Your task to perform on an android device: Where can I buy a nice beach hat? Image 0: 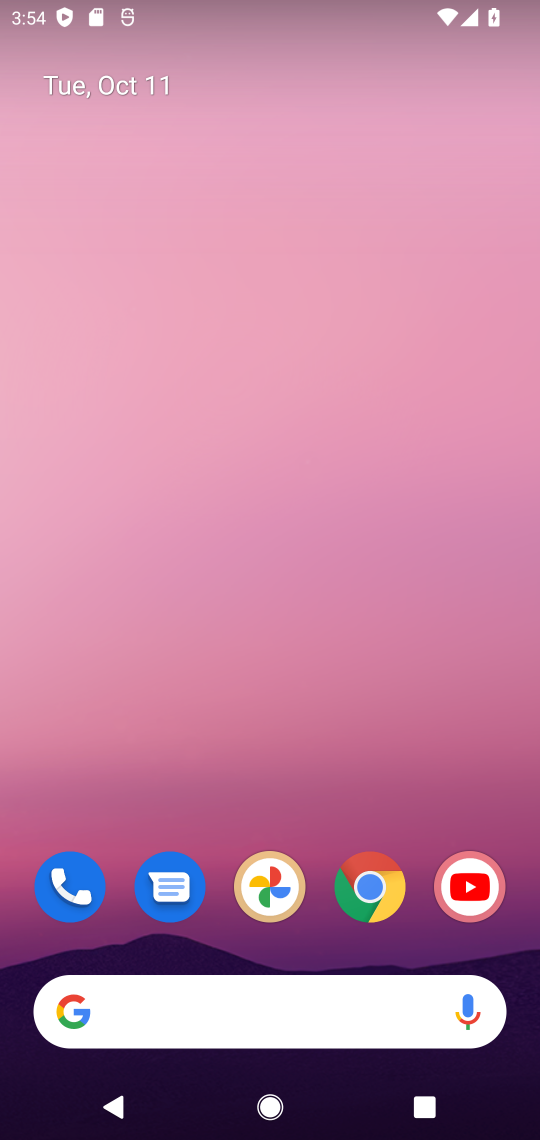
Step 0: click (378, 894)
Your task to perform on an android device: Where can I buy a nice beach hat? Image 1: 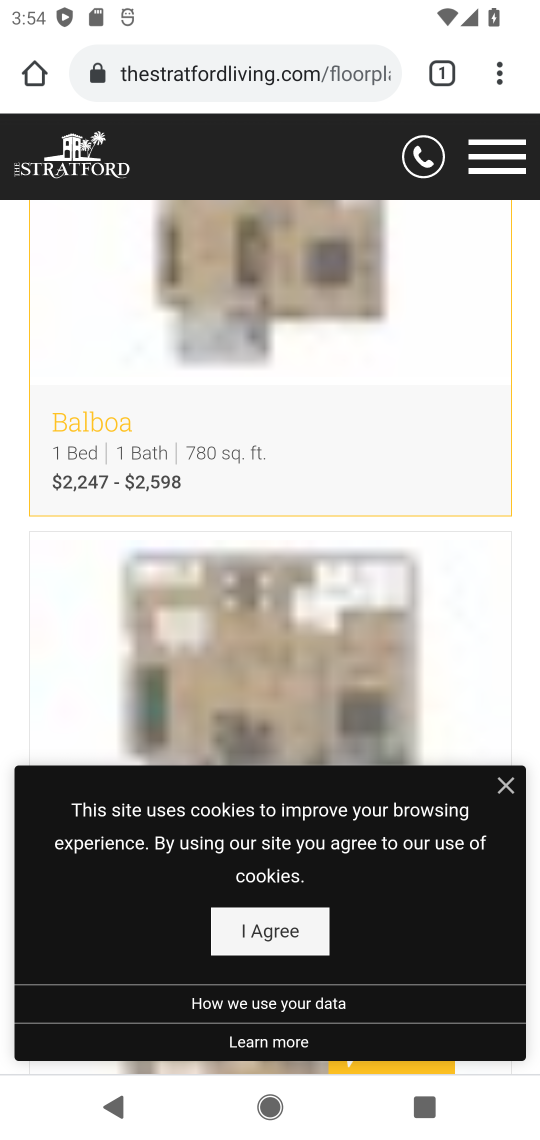
Step 1: click (223, 72)
Your task to perform on an android device: Where can I buy a nice beach hat? Image 2: 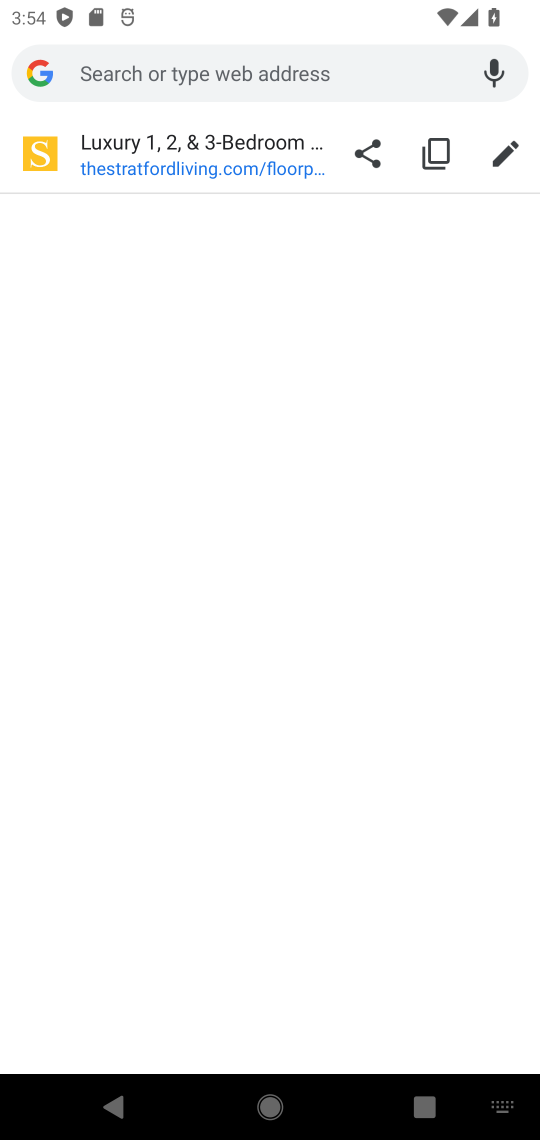
Step 2: type "beach hat"
Your task to perform on an android device: Where can I buy a nice beach hat? Image 3: 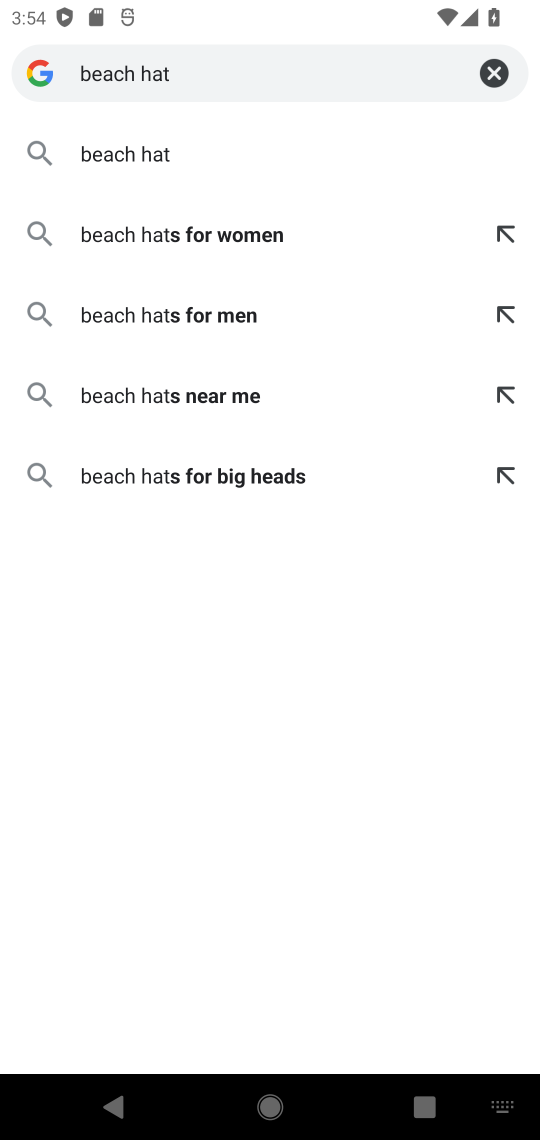
Step 3: click (123, 163)
Your task to perform on an android device: Where can I buy a nice beach hat? Image 4: 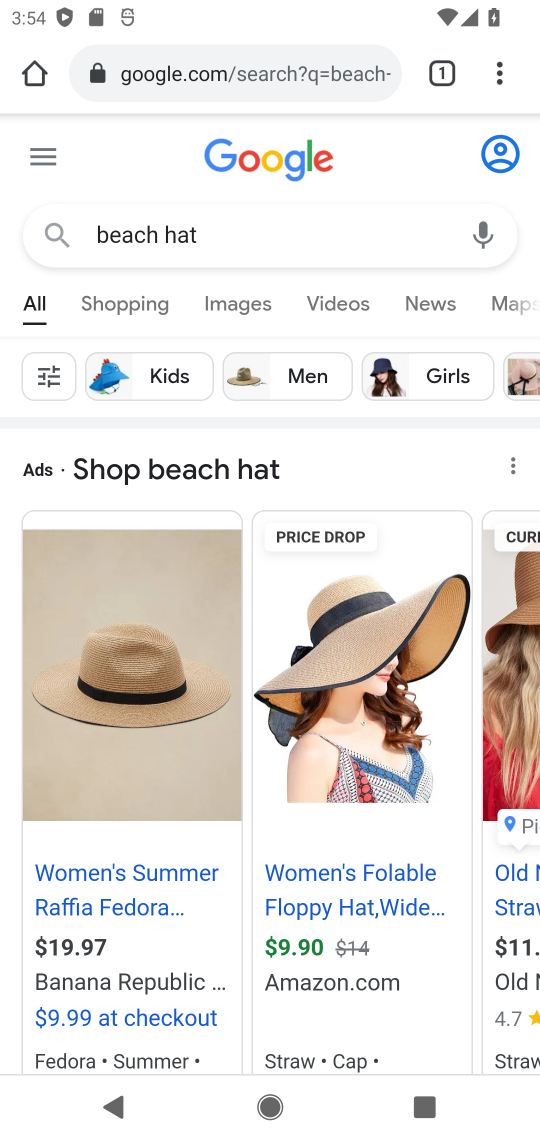
Step 4: click (127, 318)
Your task to perform on an android device: Where can I buy a nice beach hat? Image 5: 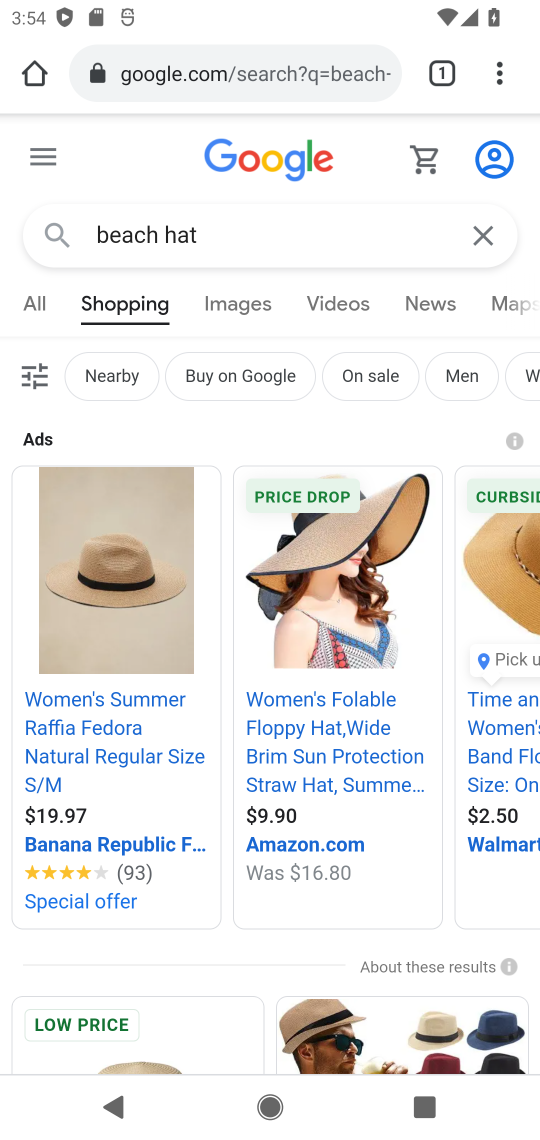
Step 5: task complete